Your task to perform on an android device: Open the Play Movies app and select the watchlist tab. Image 0: 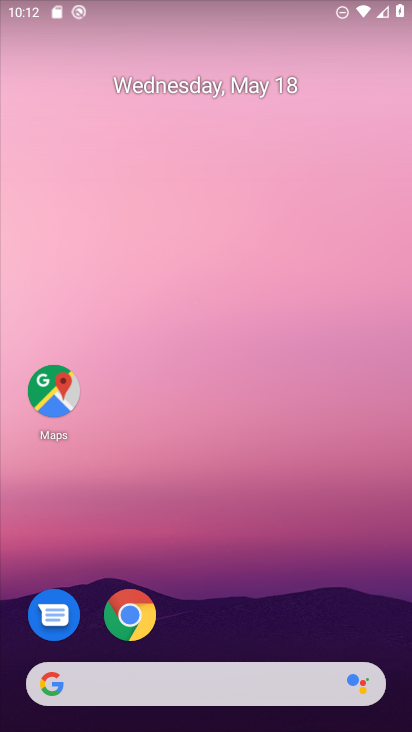
Step 0: drag from (239, 598) to (256, 82)
Your task to perform on an android device: Open the Play Movies app and select the watchlist tab. Image 1: 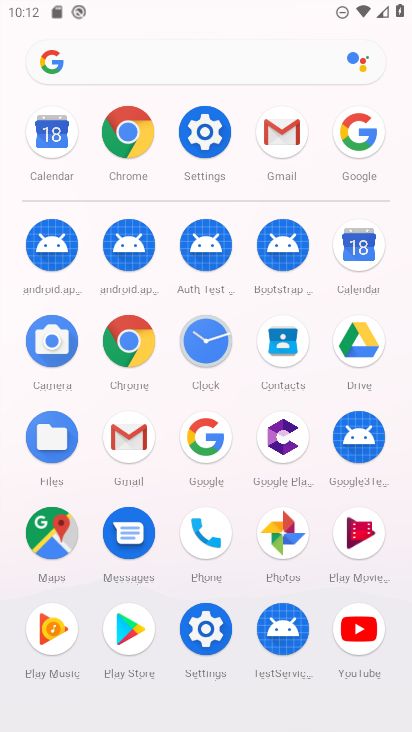
Step 1: click (361, 518)
Your task to perform on an android device: Open the Play Movies app and select the watchlist tab. Image 2: 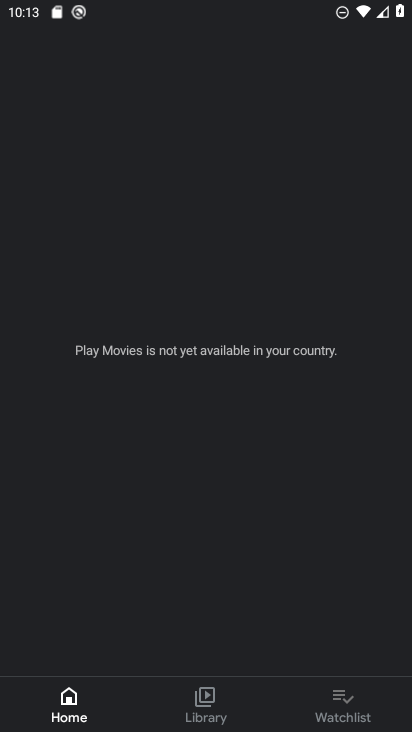
Step 2: click (338, 701)
Your task to perform on an android device: Open the Play Movies app and select the watchlist tab. Image 3: 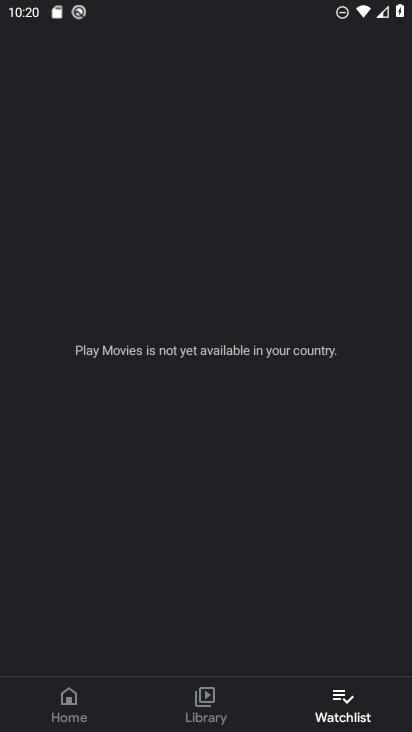
Step 3: task complete